Your task to perform on an android device: Search for pizza restaurants on Maps Image 0: 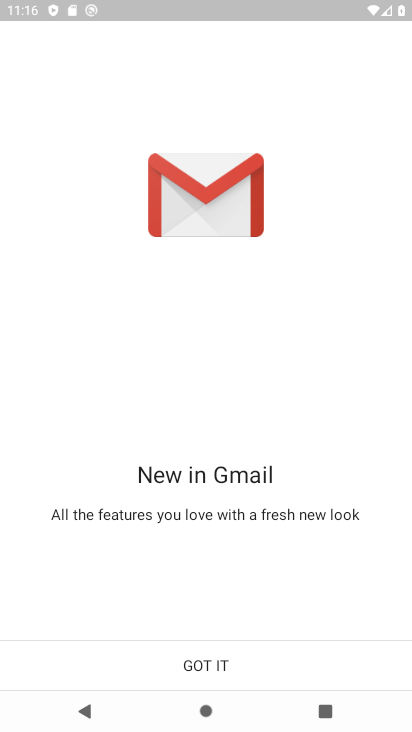
Step 0: press home button
Your task to perform on an android device: Search for pizza restaurants on Maps Image 1: 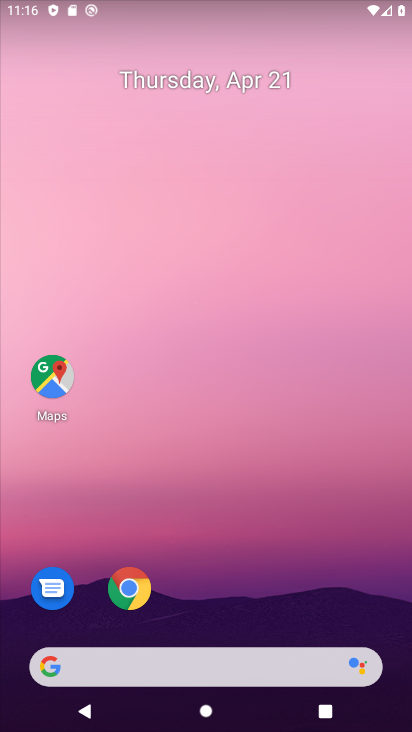
Step 1: click (49, 374)
Your task to perform on an android device: Search for pizza restaurants on Maps Image 2: 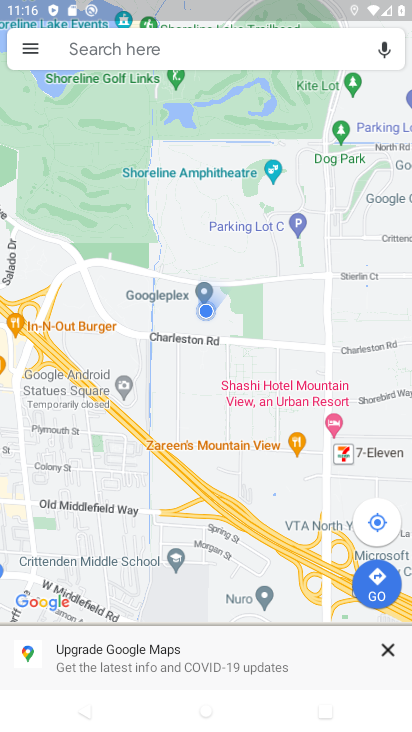
Step 2: click (169, 49)
Your task to perform on an android device: Search for pizza restaurants on Maps Image 3: 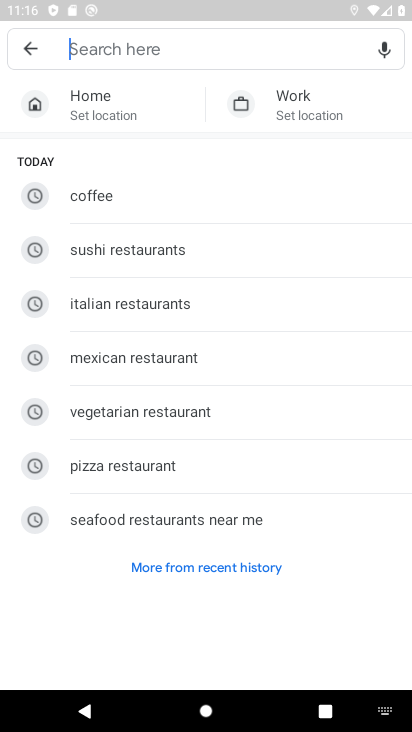
Step 3: type "pizza restaurants"
Your task to perform on an android device: Search for pizza restaurants on Maps Image 4: 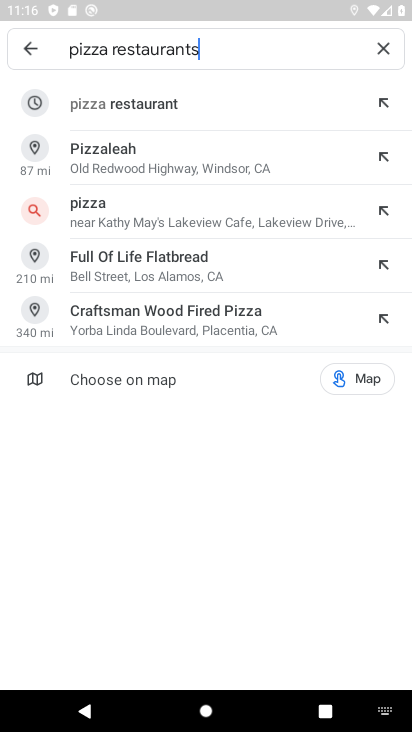
Step 4: click (153, 96)
Your task to perform on an android device: Search for pizza restaurants on Maps Image 5: 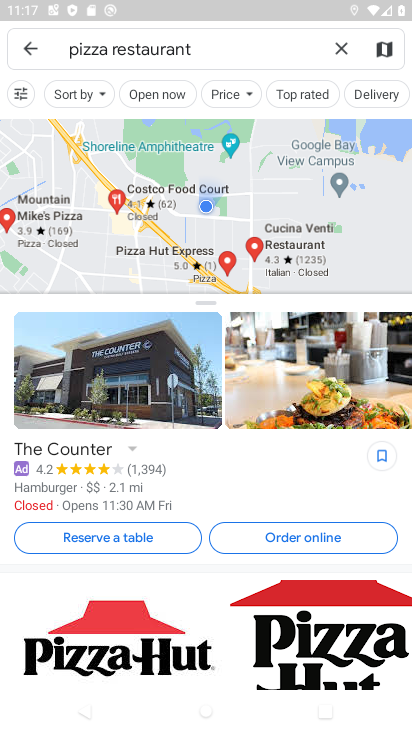
Step 5: task complete